Your task to perform on an android device: set the stopwatch Image 0: 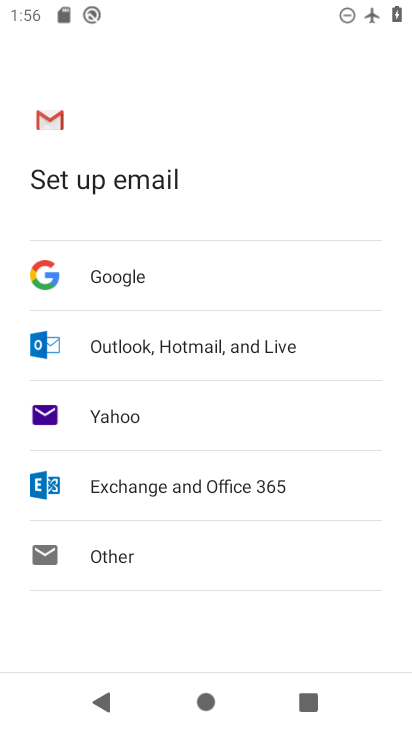
Step 0: press home button
Your task to perform on an android device: set the stopwatch Image 1: 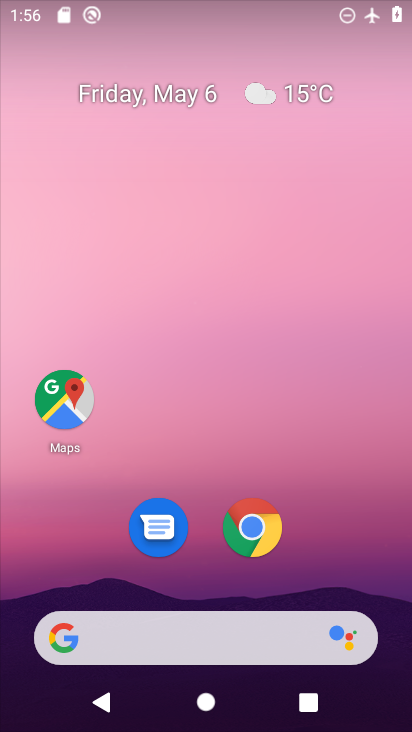
Step 1: drag from (344, 537) to (149, 176)
Your task to perform on an android device: set the stopwatch Image 2: 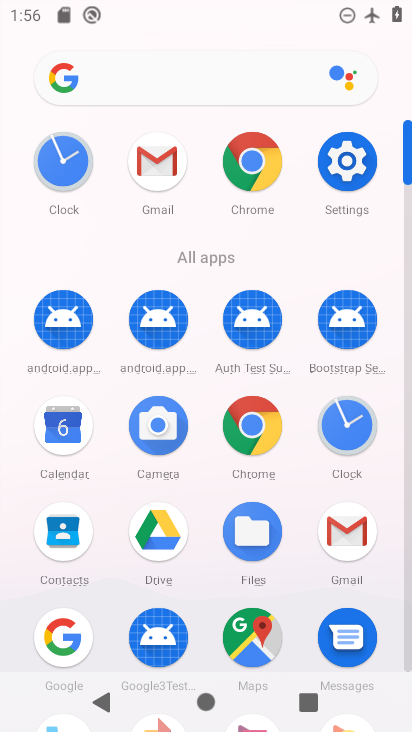
Step 2: click (67, 161)
Your task to perform on an android device: set the stopwatch Image 3: 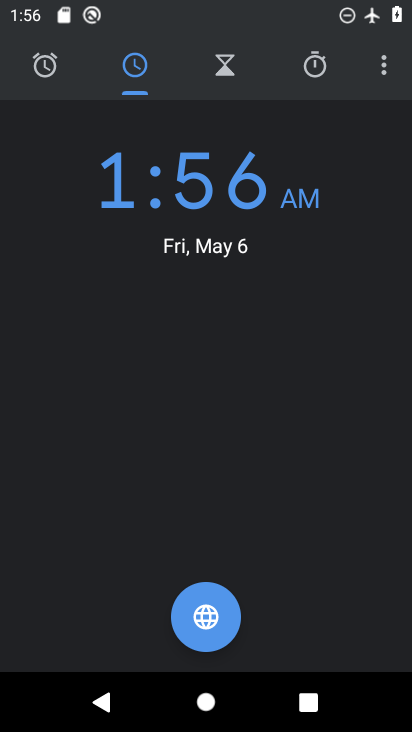
Step 3: click (309, 73)
Your task to perform on an android device: set the stopwatch Image 4: 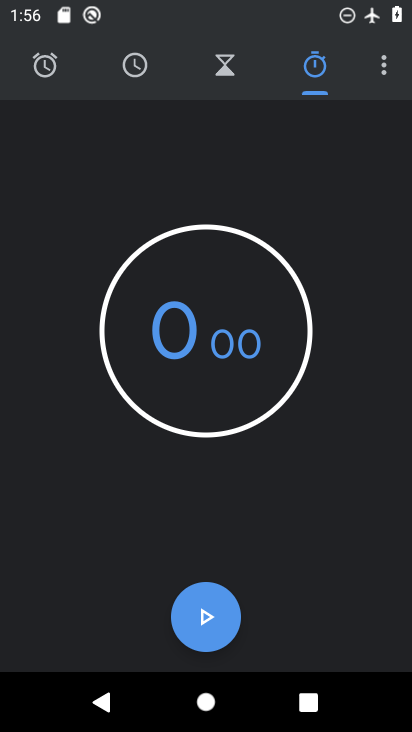
Step 4: click (203, 625)
Your task to perform on an android device: set the stopwatch Image 5: 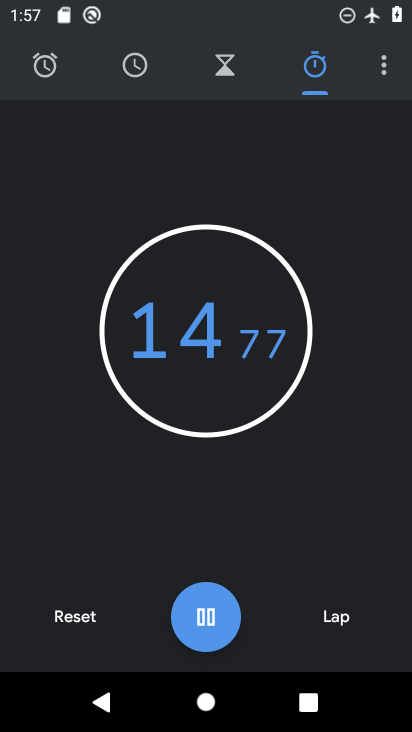
Step 5: click (215, 612)
Your task to perform on an android device: set the stopwatch Image 6: 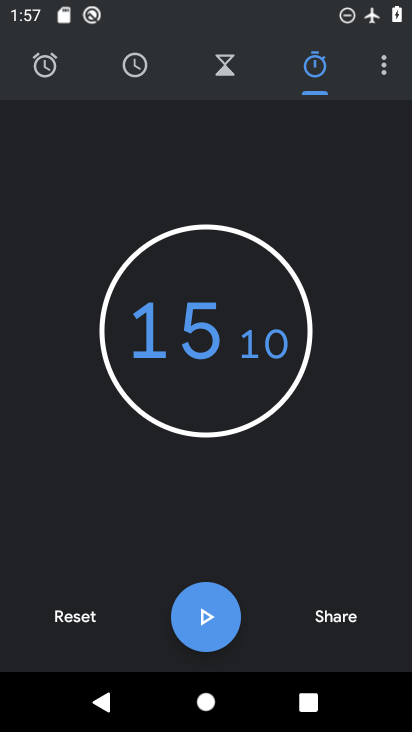
Step 6: task complete